Your task to perform on an android device: Open Google Maps Image 0: 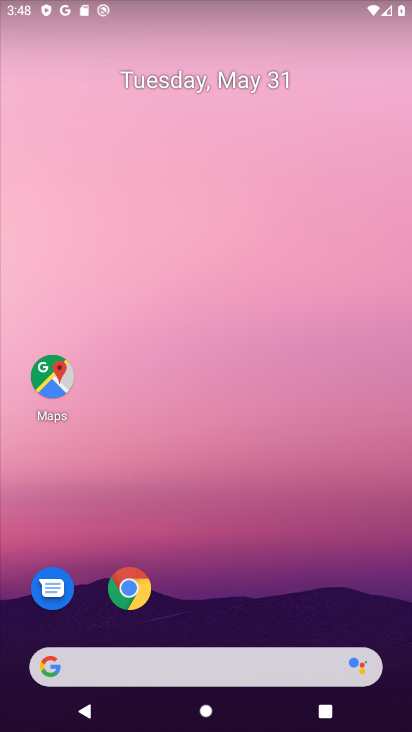
Step 0: click (59, 381)
Your task to perform on an android device: Open Google Maps Image 1: 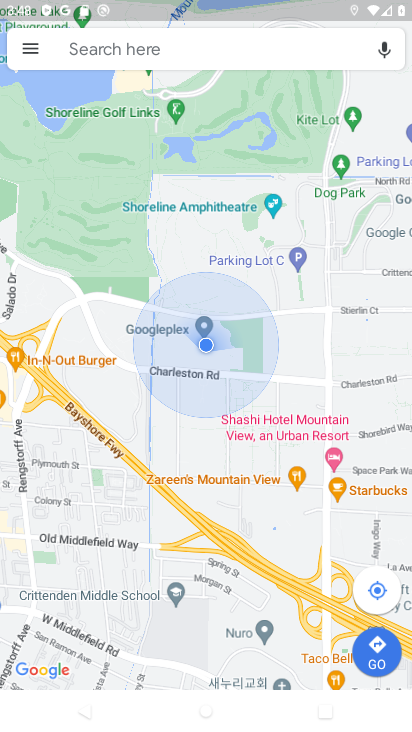
Step 1: task complete